Your task to perform on an android device: toggle javascript in the chrome app Image 0: 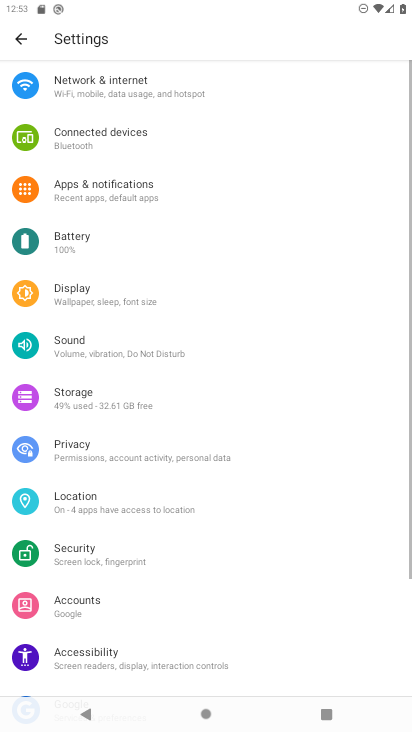
Step 0: press home button
Your task to perform on an android device: toggle javascript in the chrome app Image 1: 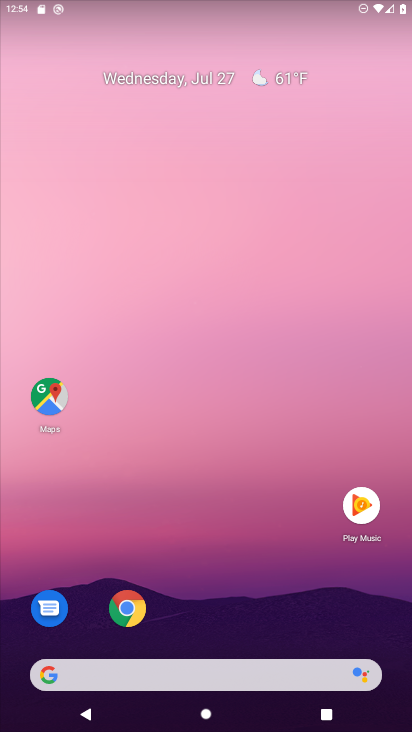
Step 1: drag from (252, 613) to (294, 161)
Your task to perform on an android device: toggle javascript in the chrome app Image 2: 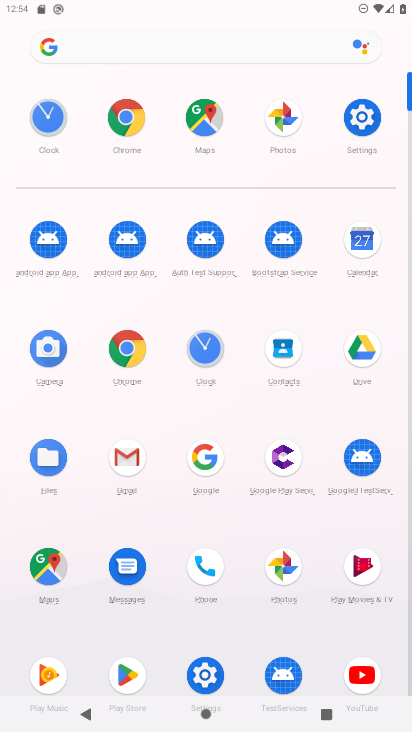
Step 2: click (125, 353)
Your task to perform on an android device: toggle javascript in the chrome app Image 3: 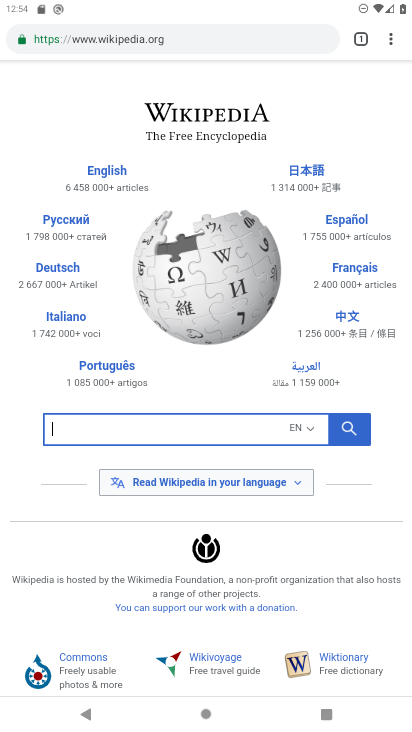
Step 3: click (386, 41)
Your task to perform on an android device: toggle javascript in the chrome app Image 4: 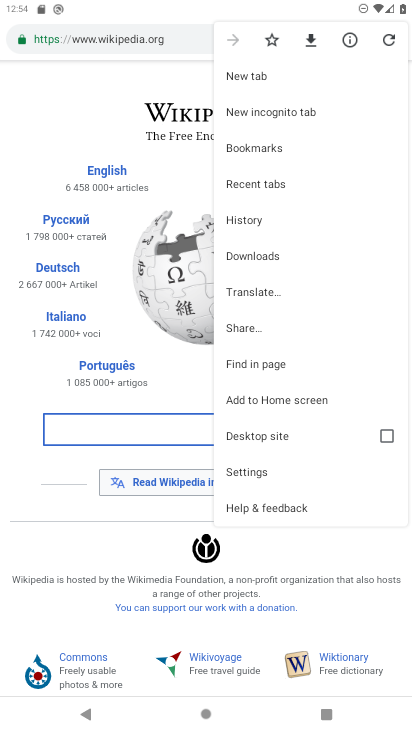
Step 4: drag from (364, 326) to (361, 282)
Your task to perform on an android device: toggle javascript in the chrome app Image 5: 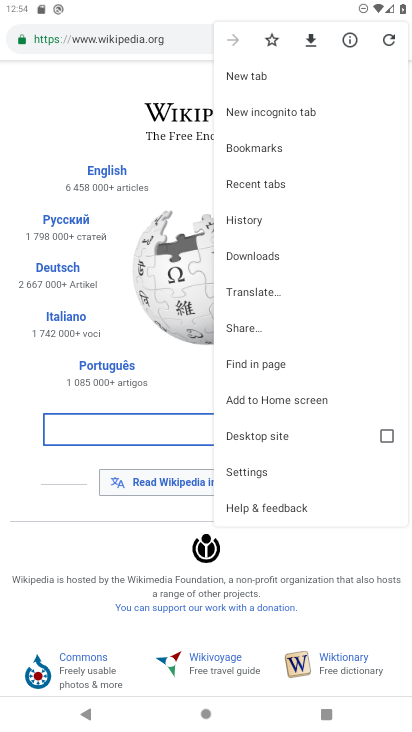
Step 5: click (311, 464)
Your task to perform on an android device: toggle javascript in the chrome app Image 6: 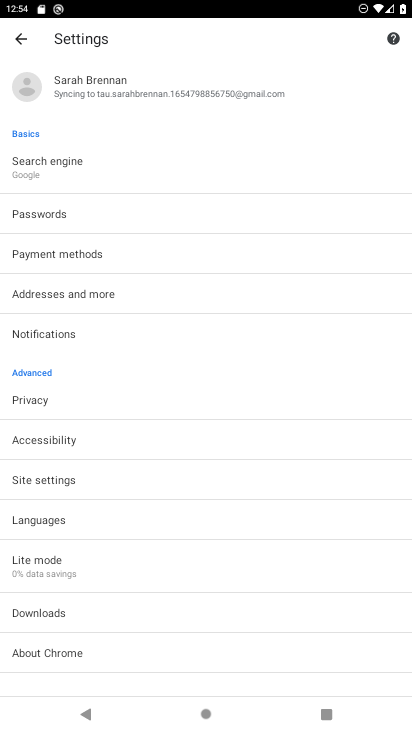
Step 6: drag from (311, 464) to (318, 374)
Your task to perform on an android device: toggle javascript in the chrome app Image 7: 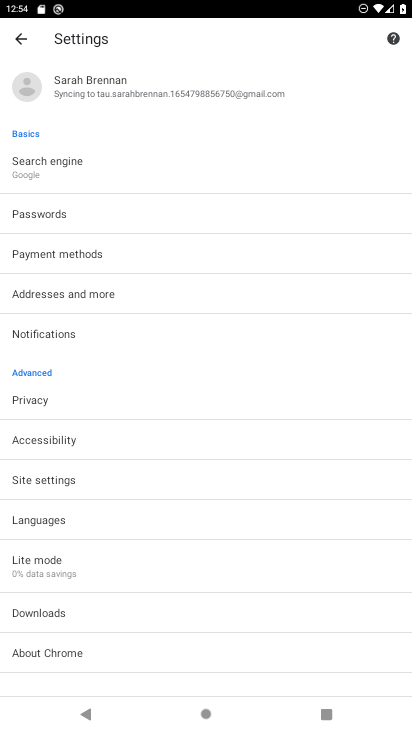
Step 7: click (287, 469)
Your task to perform on an android device: toggle javascript in the chrome app Image 8: 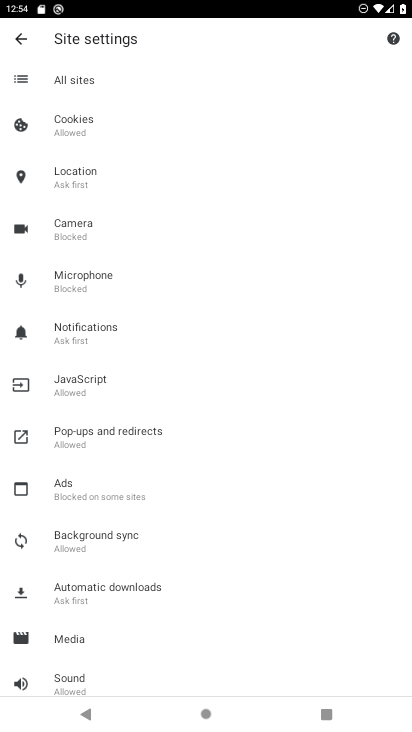
Step 8: click (101, 381)
Your task to perform on an android device: toggle javascript in the chrome app Image 9: 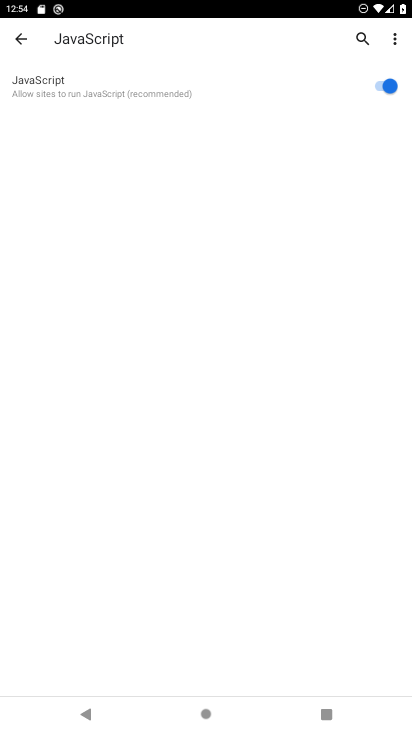
Step 9: click (386, 85)
Your task to perform on an android device: toggle javascript in the chrome app Image 10: 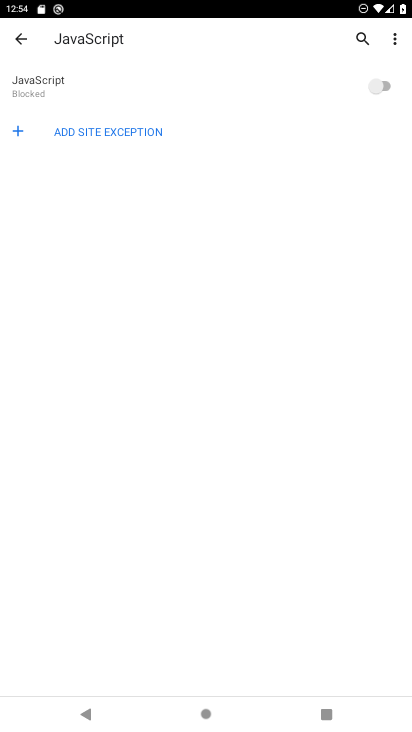
Step 10: task complete